Your task to perform on an android device: toggle notification dots Image 0: 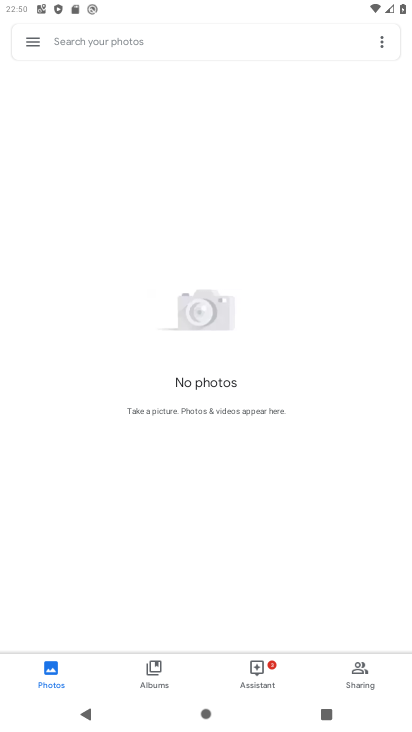
Step 0: press home button
Your task to perform on an android device: toggle notification dots Image 1: 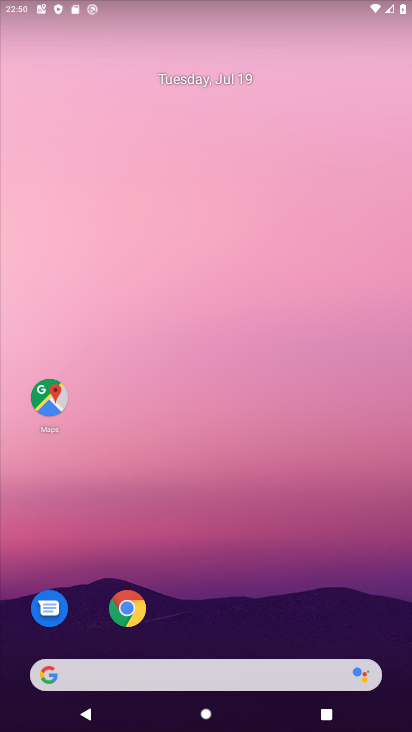
Step 1: drag from (303, 601) to (246, 103)
Your task to perform on an android device: toggle notification dots Image 2: 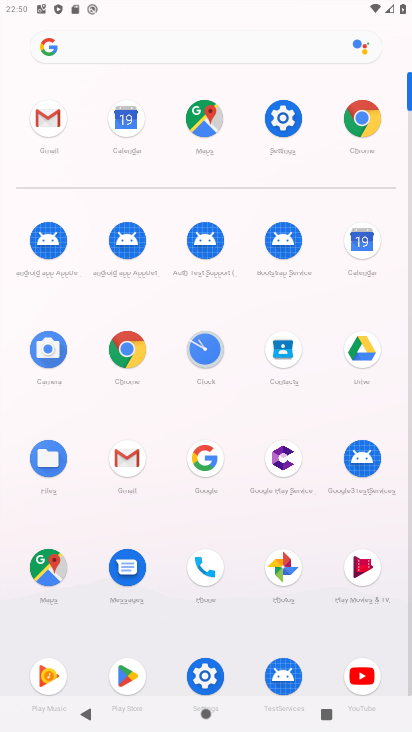
Step 2: click (279, 117)
Your task to perform on an android device: toggle notification dots Image 3: 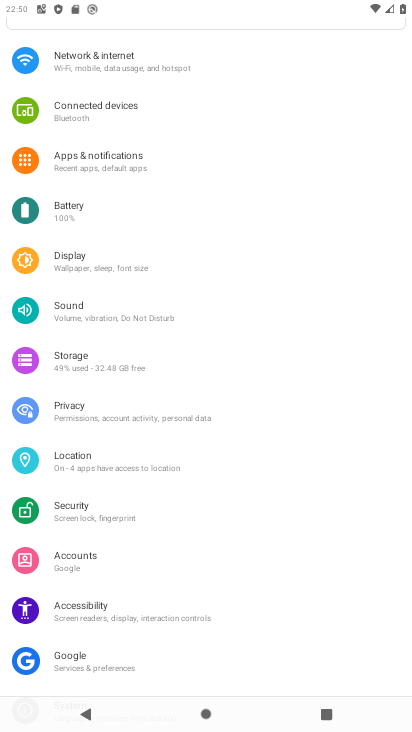
Step 3: click (110, 164)
Your task to perform on an android device: toggle notification dots Image 4: 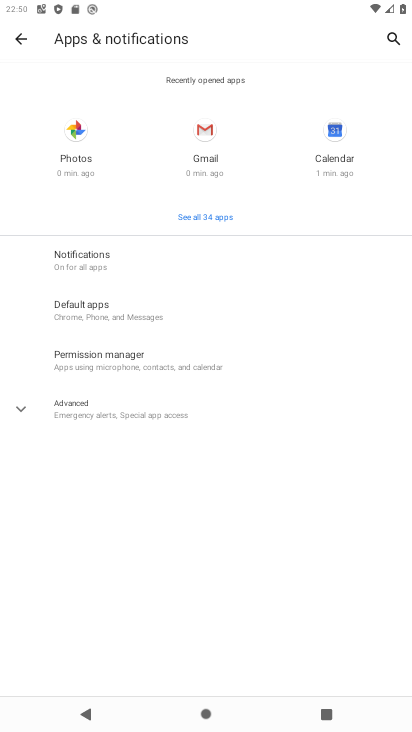
Step 4: click (111, 251)
Your task to perform on an android device: toggle notification dots Image 5: 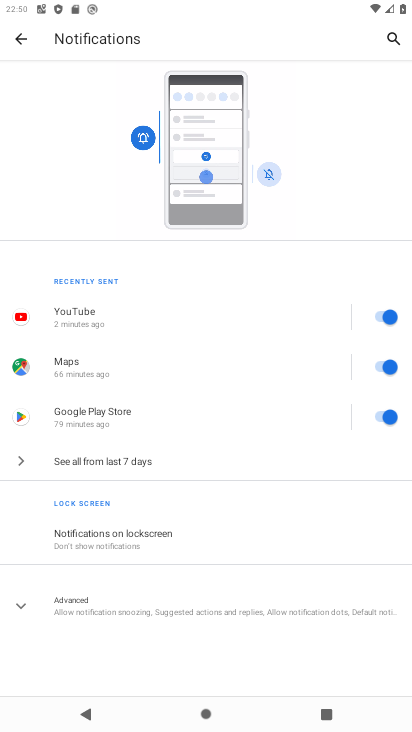
Step 5: click (146, 603)
Your task to perform on an android device: toggle notification dots Image 6: 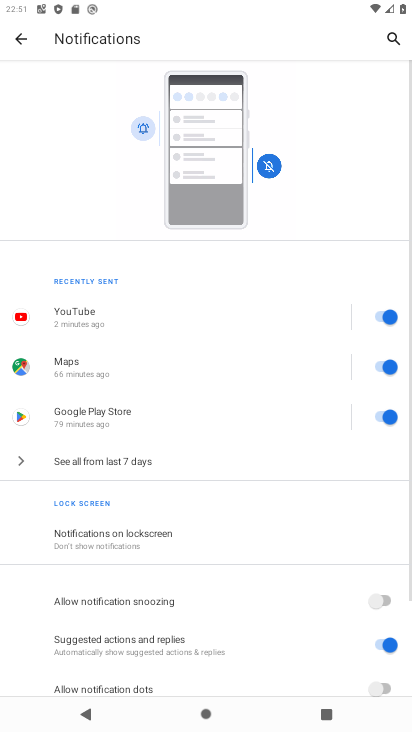
Step 6: drag from (307, 639) to (301, 279)
Your task to perform on an android device: toggle notification dots Image 7: 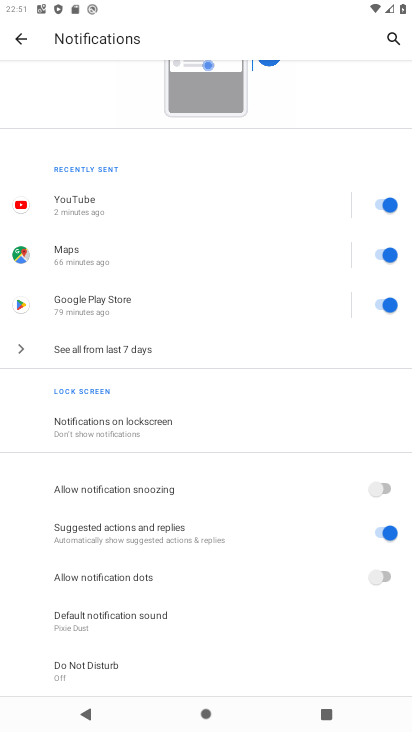
Step 7: click (367, 577)
Your task to perform on an android device: toggle notification dots Image 8: 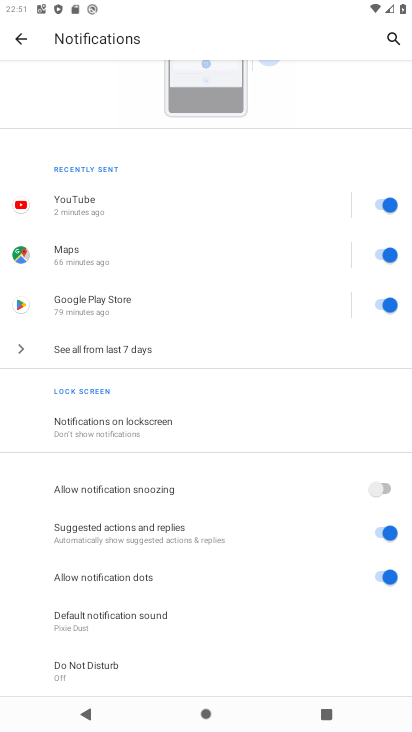
Step 8: task complete